Your task to perform on an android device: set an alarm Image 0: 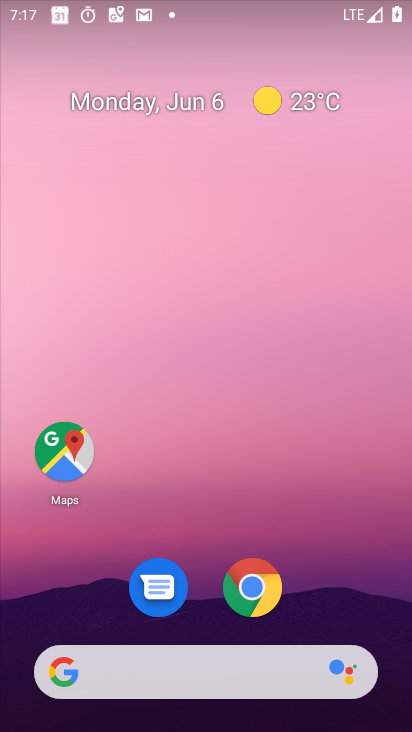
Step 0: drag from (398, 636) to (270, 13)
Your task to perform on an android device: set an alarm Image 1: 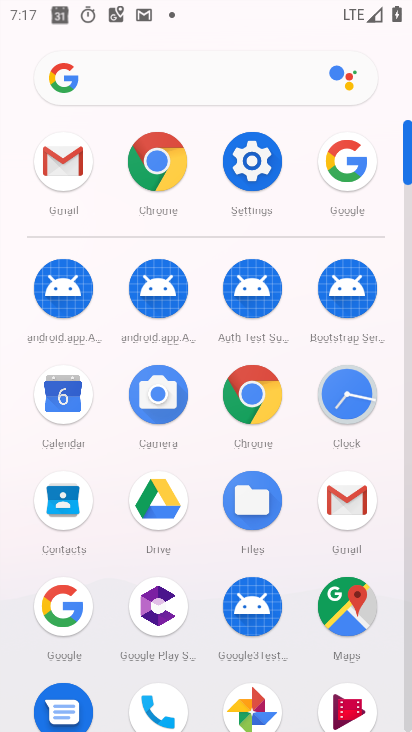
Step 1: click (349, 405)
Your task to perform on an android device: set an alarm Image 2: 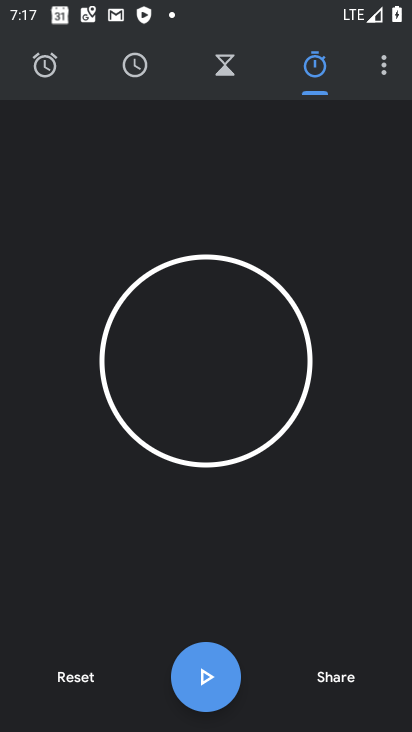
Step 2: click (38, 54)
Your task to perform on an android device: set an alarm Image 3: 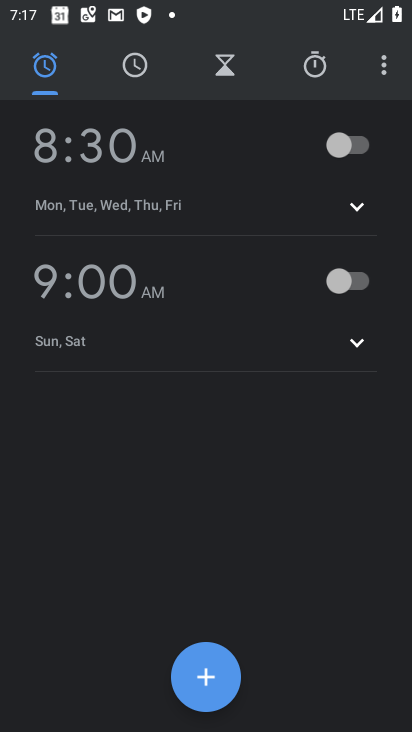
Step 3: click (346, 150)
Your task to perform on an android device: set an alarm Image 4: 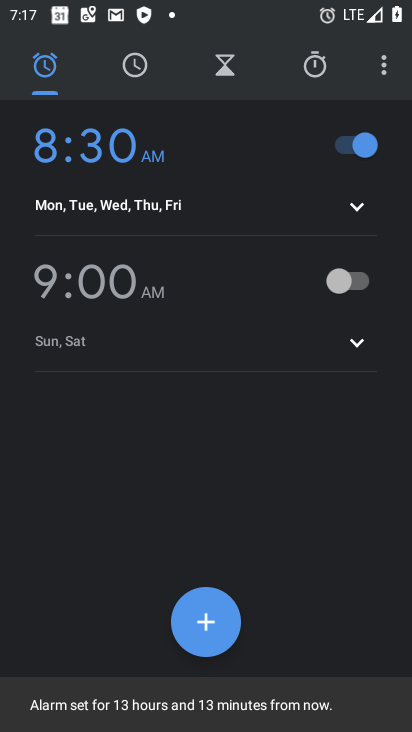
Step 4: task complete